Your task to perform on an android device: Open calendar and show me the fourth week of next month Image 0: 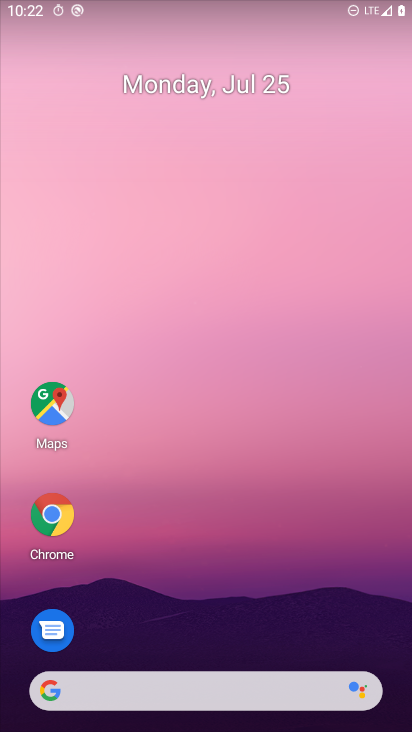
Step 0: drag from (17, 707) to (273, 134)
Your task to perform on an android device: Open calendar and show me the fourth week of next month Image 1: 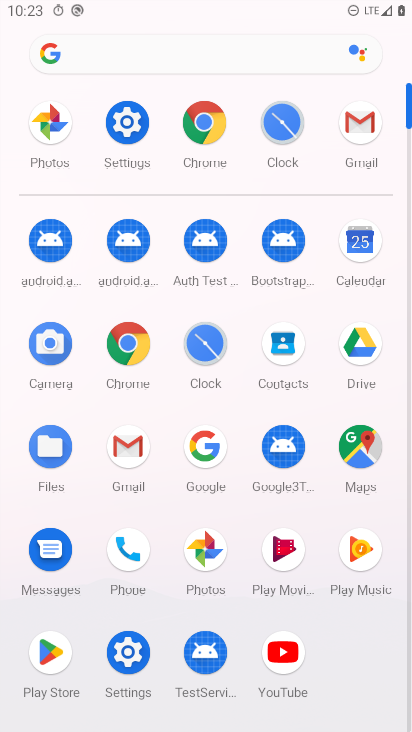
Step 1: click (360, 262)
Your task to perform on an android device: Open calendar and show me the fourth week of next month Image 2: 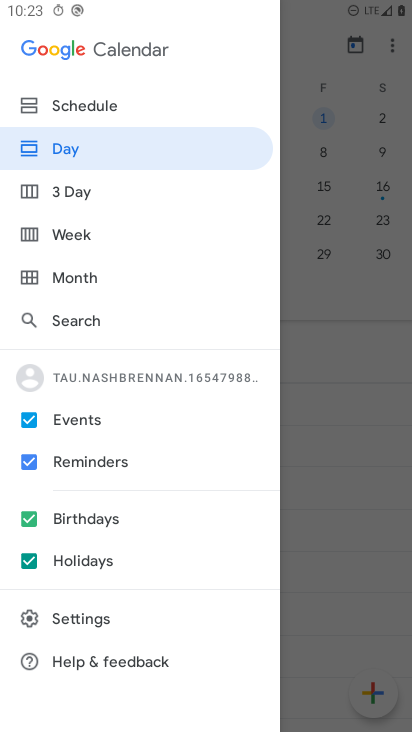
Step 2: click (351, 318)
Your task to perform on an android device: Open calendar and show me the fourth week of next month Image 3: 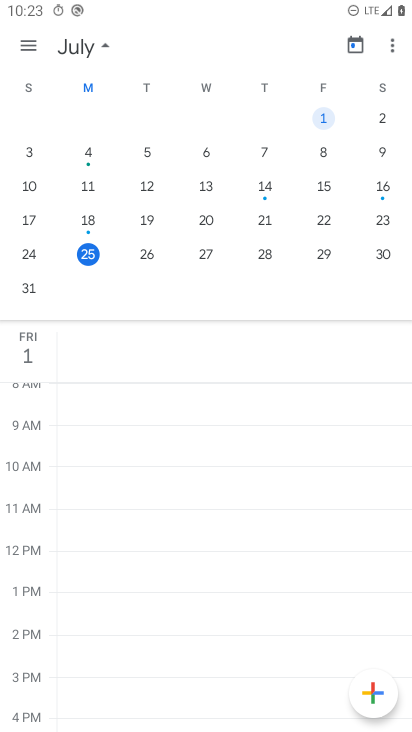
Step 3: drag from (181, 128) to (64, 107)
Your task to perform on an android device: Open calendar and show me the fourth week of next month Image 4: 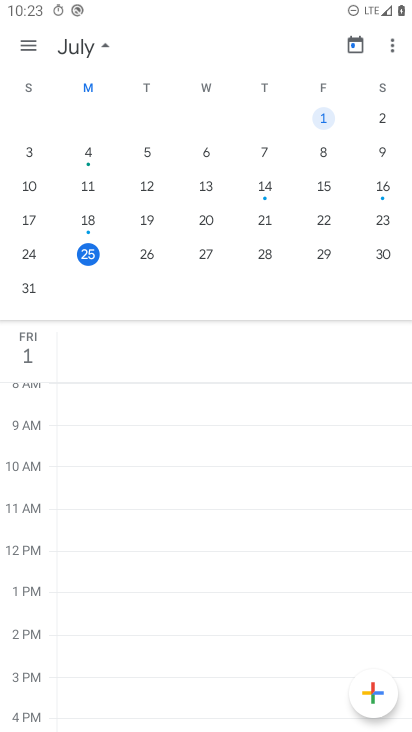
Step 4: drag from (390, 144) to (6, 183)
Your task to perform on an android device: Open calendar and show me the fourth week of next month Image 5: 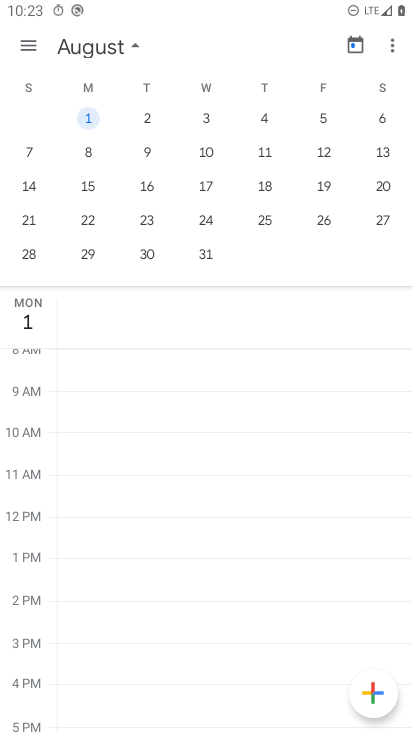
Step 5: click (133, 85)
Your task to perform on an android device: Open calendar and show me the fourth week of next month Image 6: 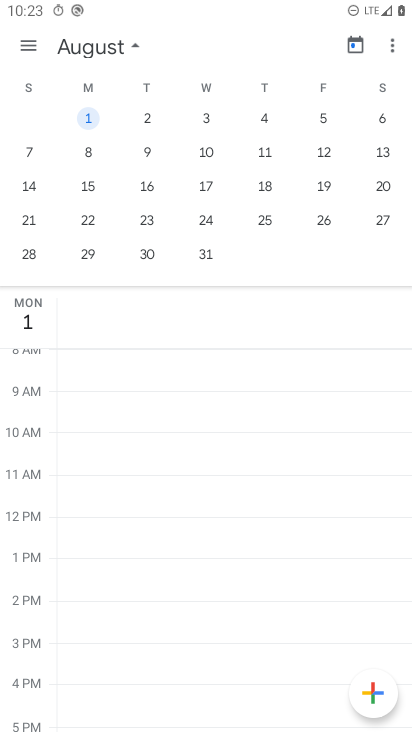
Step 6: click (84, 214)
Your task to perform on an android device: Open calendar and show me the fourth week of next month Image 7: 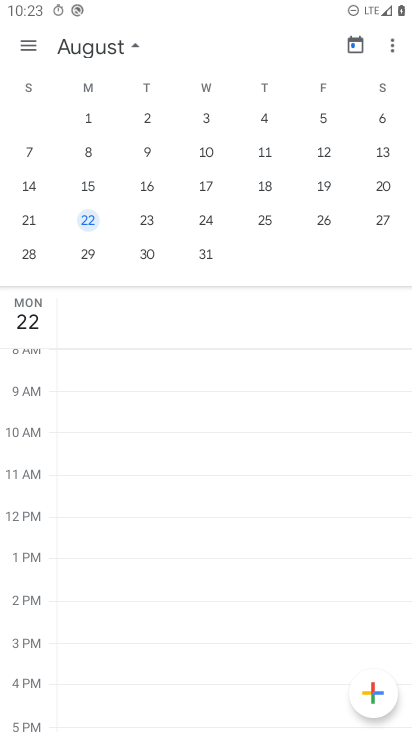
Step 7: task complete